Your task to perform on an android device: Search for flights from NYC to Mexico city Image 0: 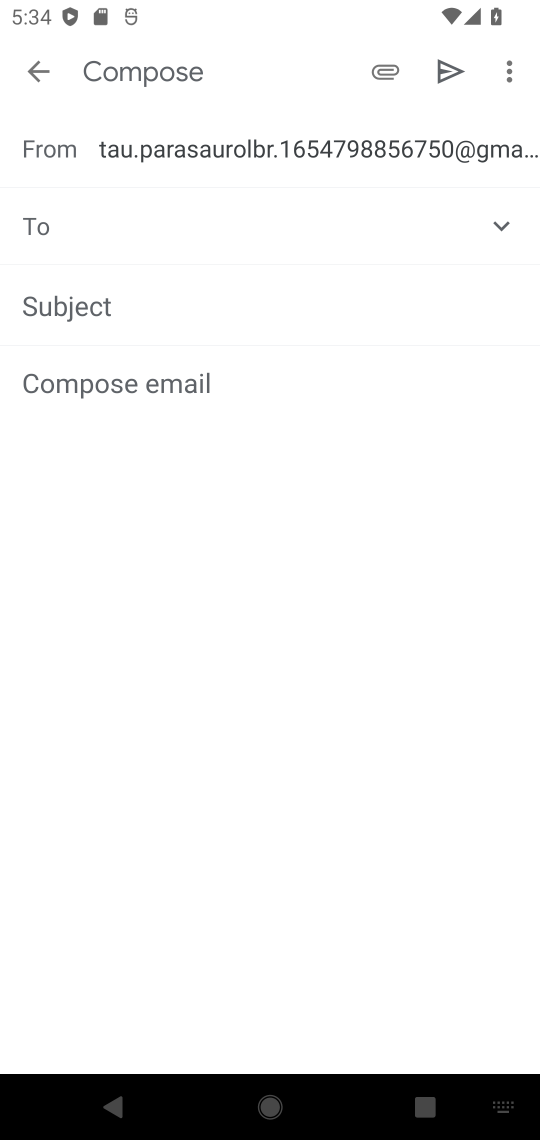
Step 0: press home button
Your task to perform on an android device: Search for flights from NYC to Mexico city Image 1: 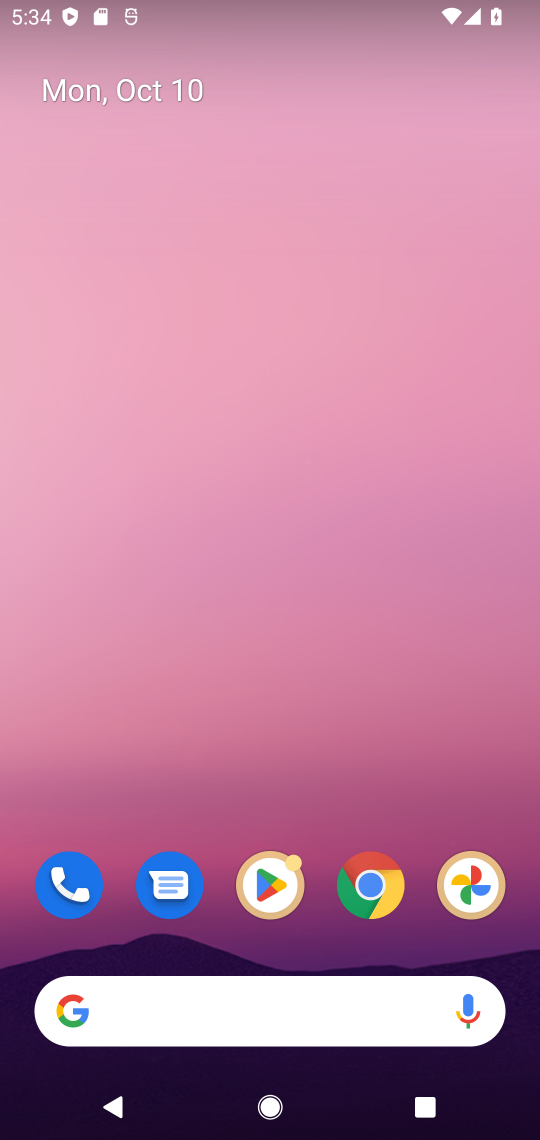
Step 1: click (365, 896)
Your task to perform on an android device: Search for flights from NYC to Mexico city Image 2: 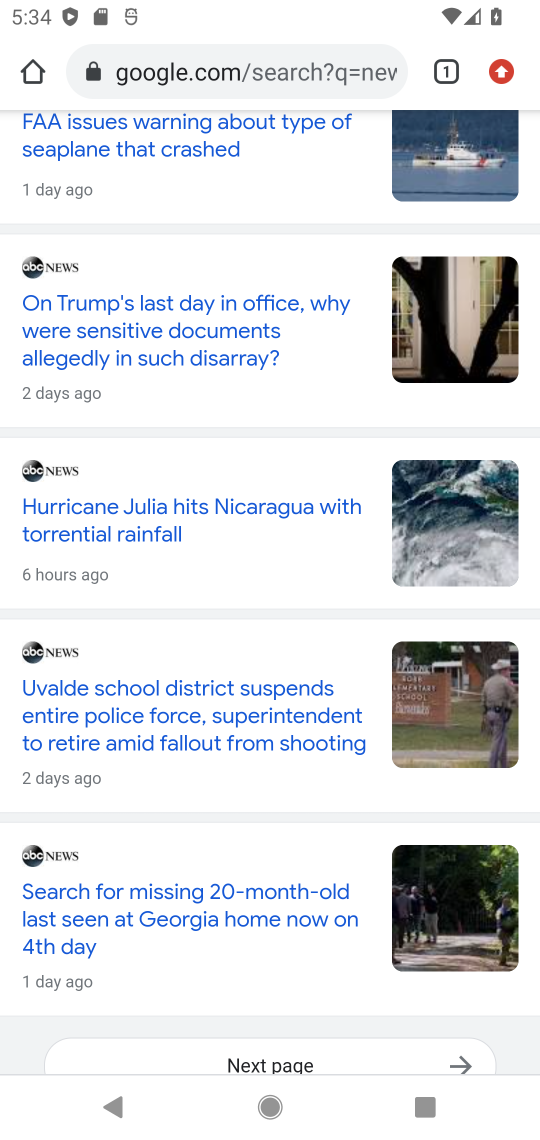
Step 2: click (251, 74)
Your task to perform on an android device: Search for flights from NYC to Mexico city Image 3: 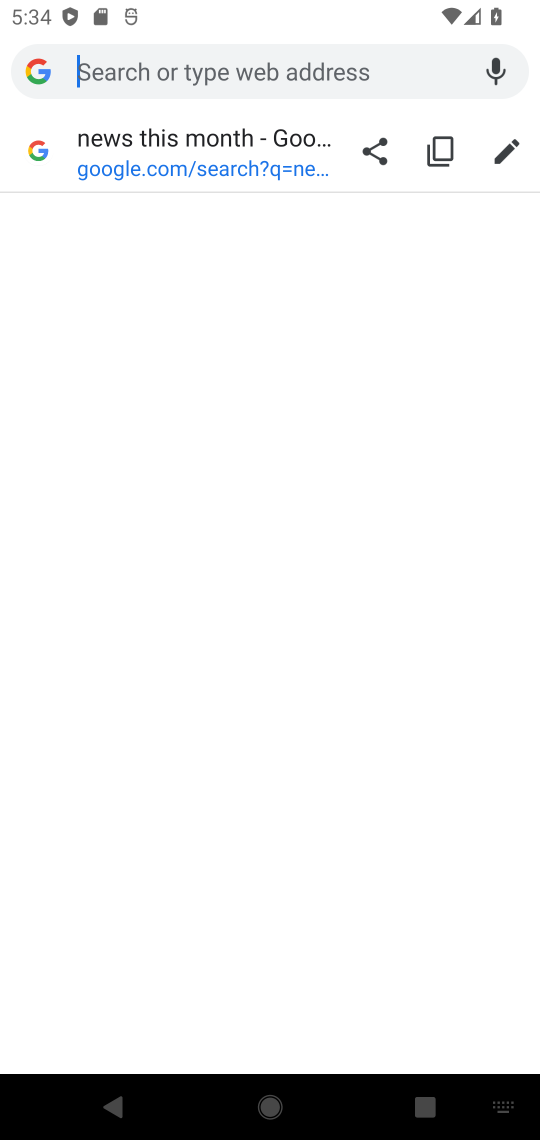
Step 3: type "flights from NYC to Mexico city"
Your task to perform on an android device: Search for flights from NYC to Mexico city Image 4: 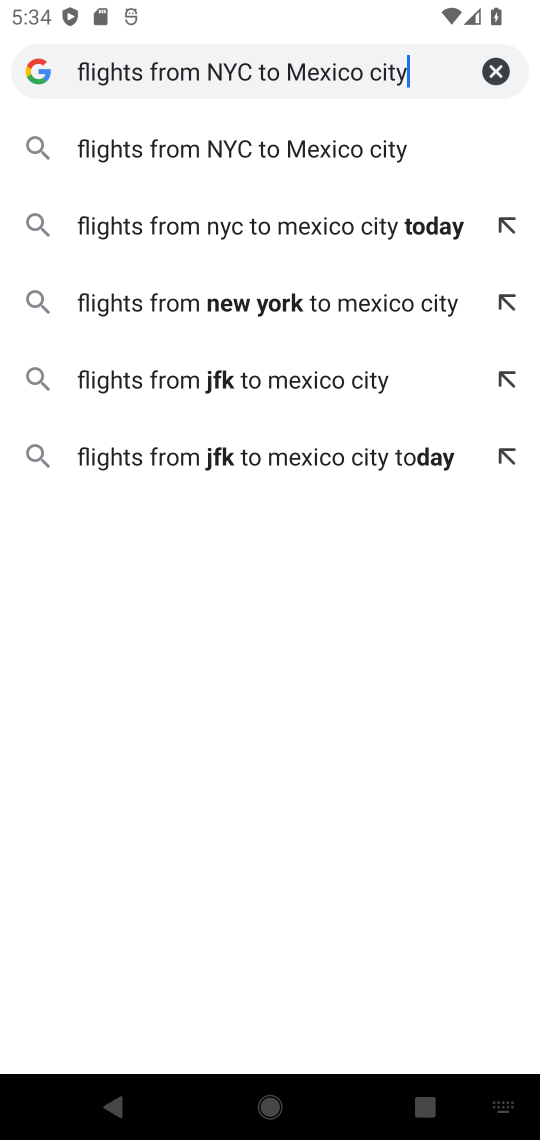
Step 4: click (354, 148)
Your task to perform on an android device: Search for flights from NYC to Mexico city Image 5: 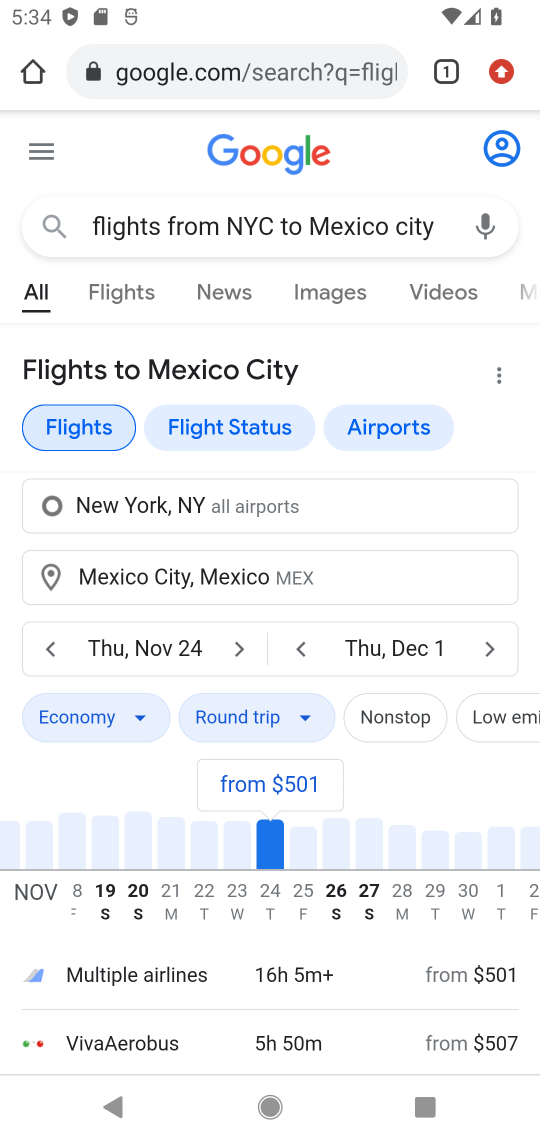
Step 5: drag from (422, 774) to (430, 244)
Your task to perform on an android device: Search for flights from NYC to Mexico city Image 6: 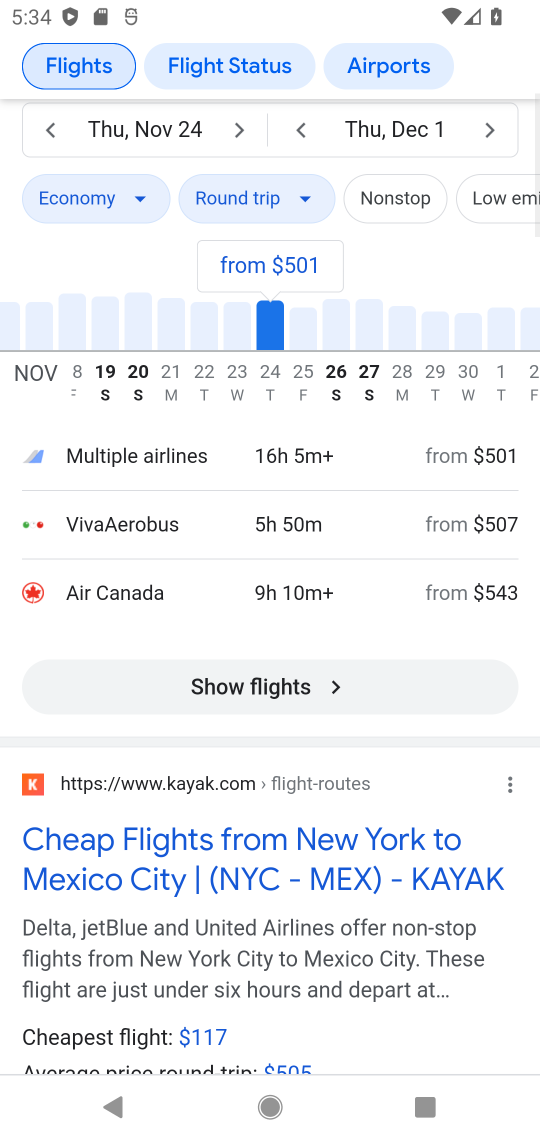
Step 6: click (286, 686)
Your task to perform on an android device: Search for flights from NYC to Mexico city Image 7: 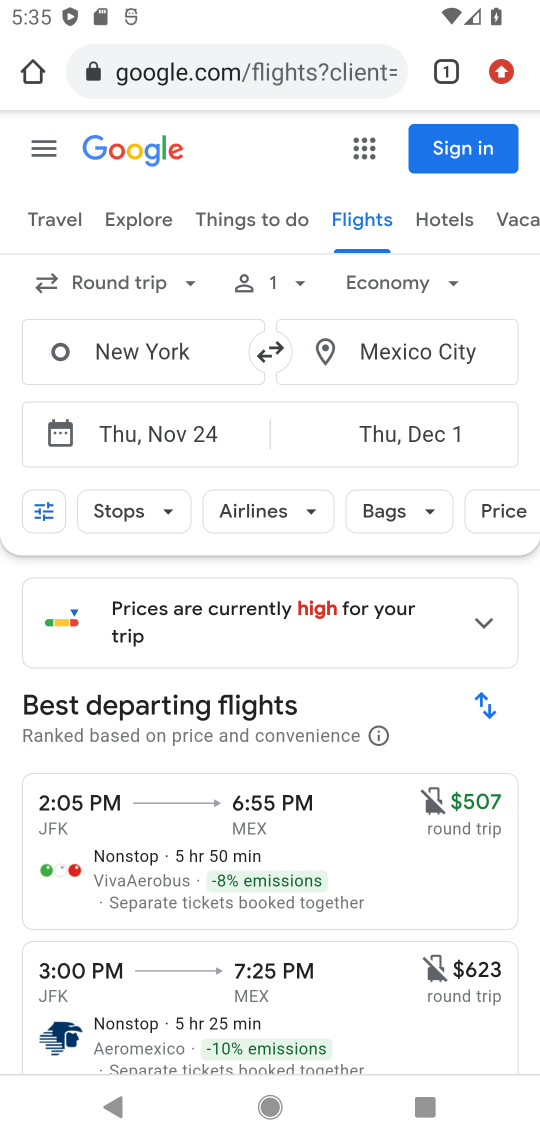
Step 7: task complete